Your task to perform on an android device: open a new tab in the chrome app Image 0: 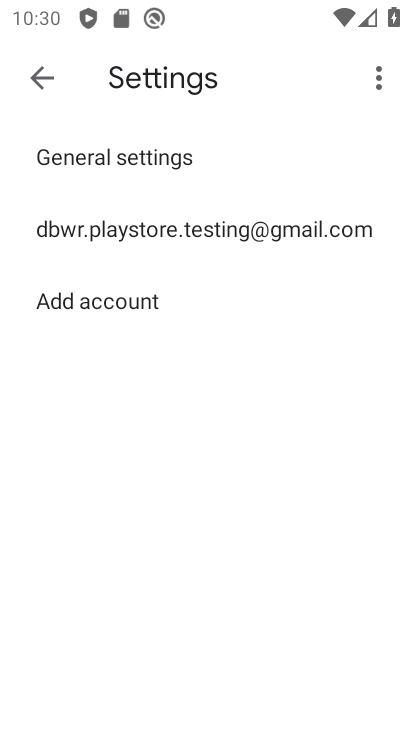
Step 0: press home button
Your task to perform on an android device: open a new tab in the chrome app Image 1: 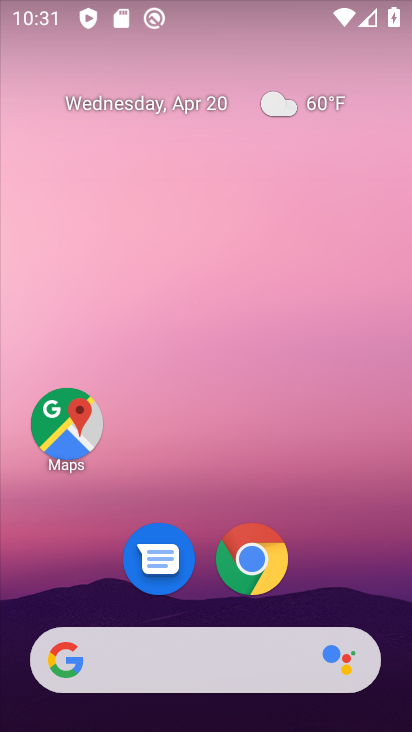
Step 1: click (248, 560)
Your task to perform on an android device: open a new tab in the chrome app Image 2: 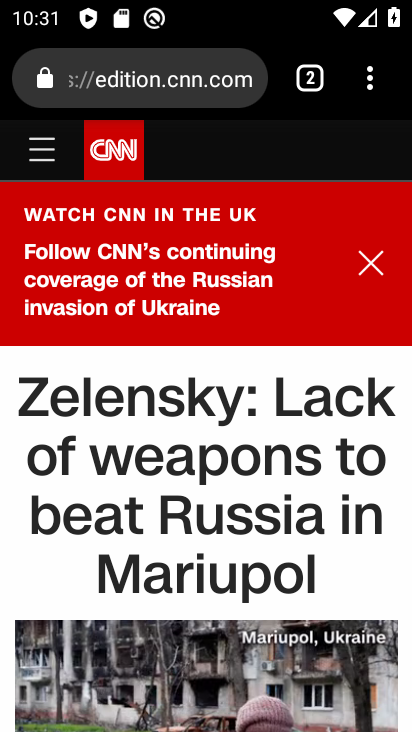
Step 2: task complete